Your task to perform on an android device: change the upload size in google photos Image 0: 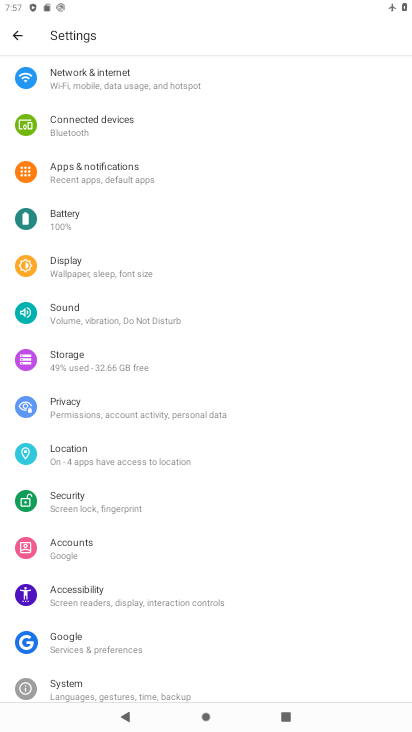
Step 0: press home button
Your task to perform on an android device: change the upload size in google photos Image 1: 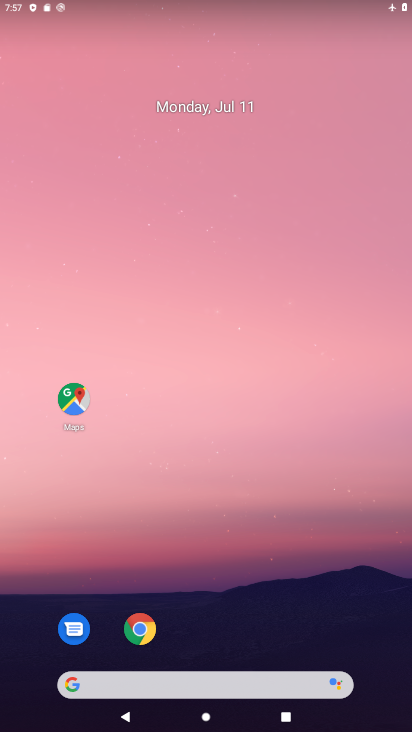
Step 1: drag from (209, 673) to (199, 42)
Your task to perform on an android device: change the upload size in google photos Image 2: 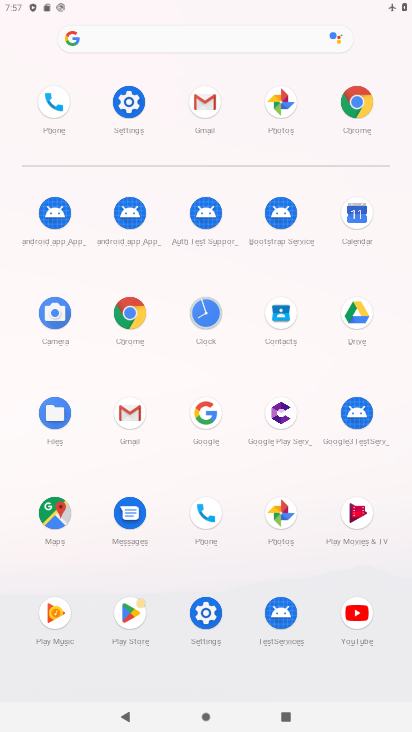
Step 2: click (290, 516)
Your task to perform on an android device: change the upload size in google photos Image 3: 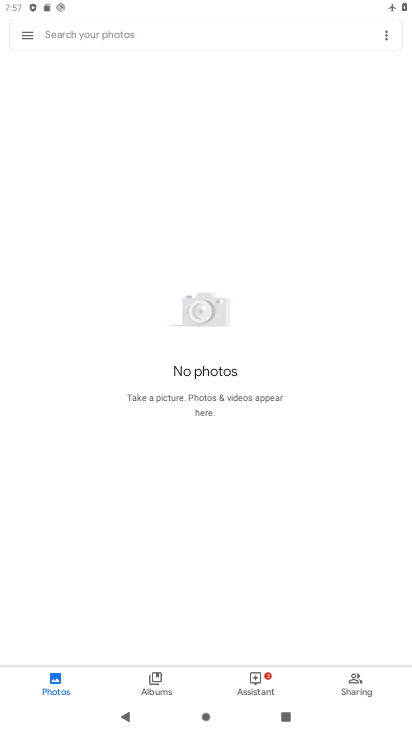
Step 3: click (25, 35)
Your task to perform on an android device: change the upload size in google photos Image 4: 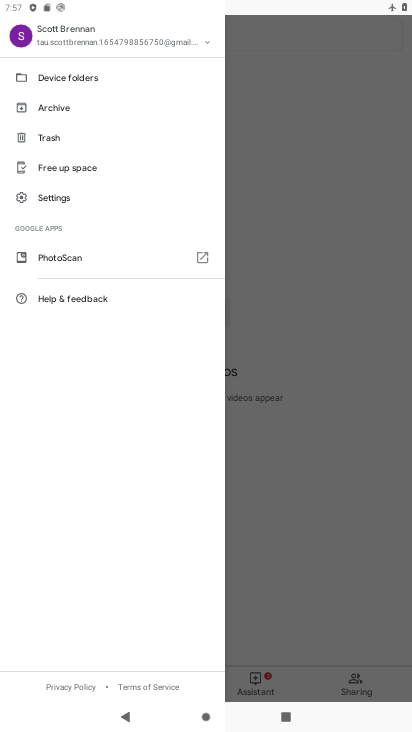
Step 4: click (52, 195)
Your task to perform on an android device: change the upload size in google photos Image 5: 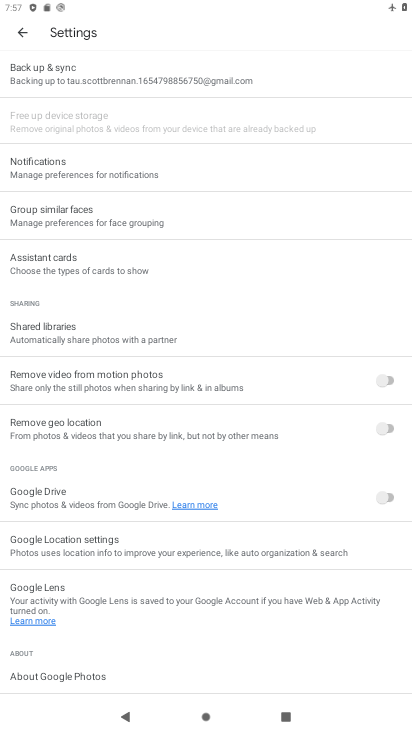
Step 5: click (33, 82)
Your task to perform on an android device: change the upload size in google photos Image 6: 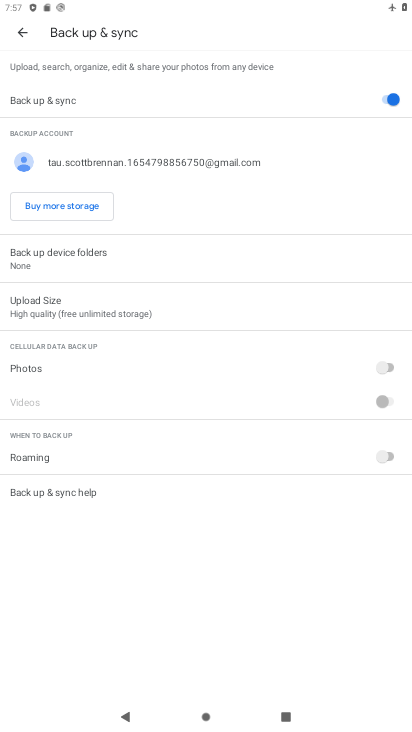
Step 6: click (62, 303)
Your task to perform on an android device: change the upload size in google photos Image 7: 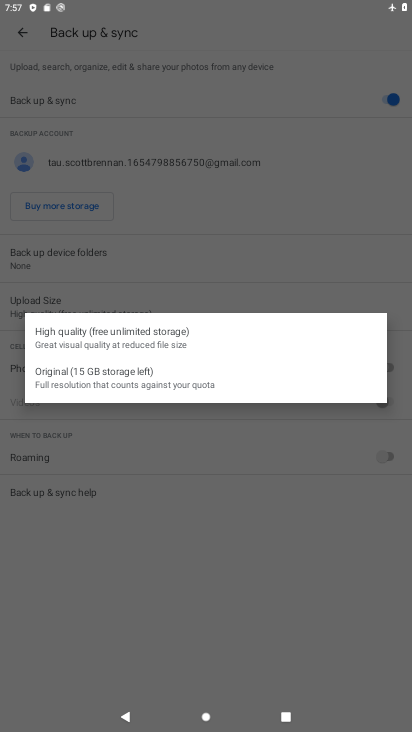
Step 7: click (102, 374)
Your task to perform on an android device: change the upload size in google photos Image 8: 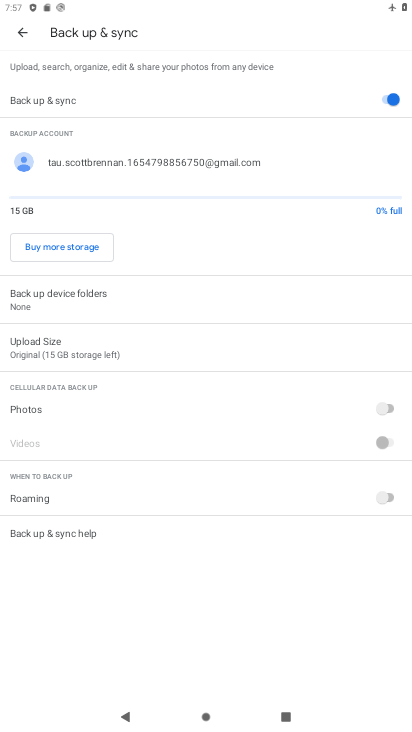
Step 8: task complete